Your task to perform on an android device: clear history in the chrome app Image 0: 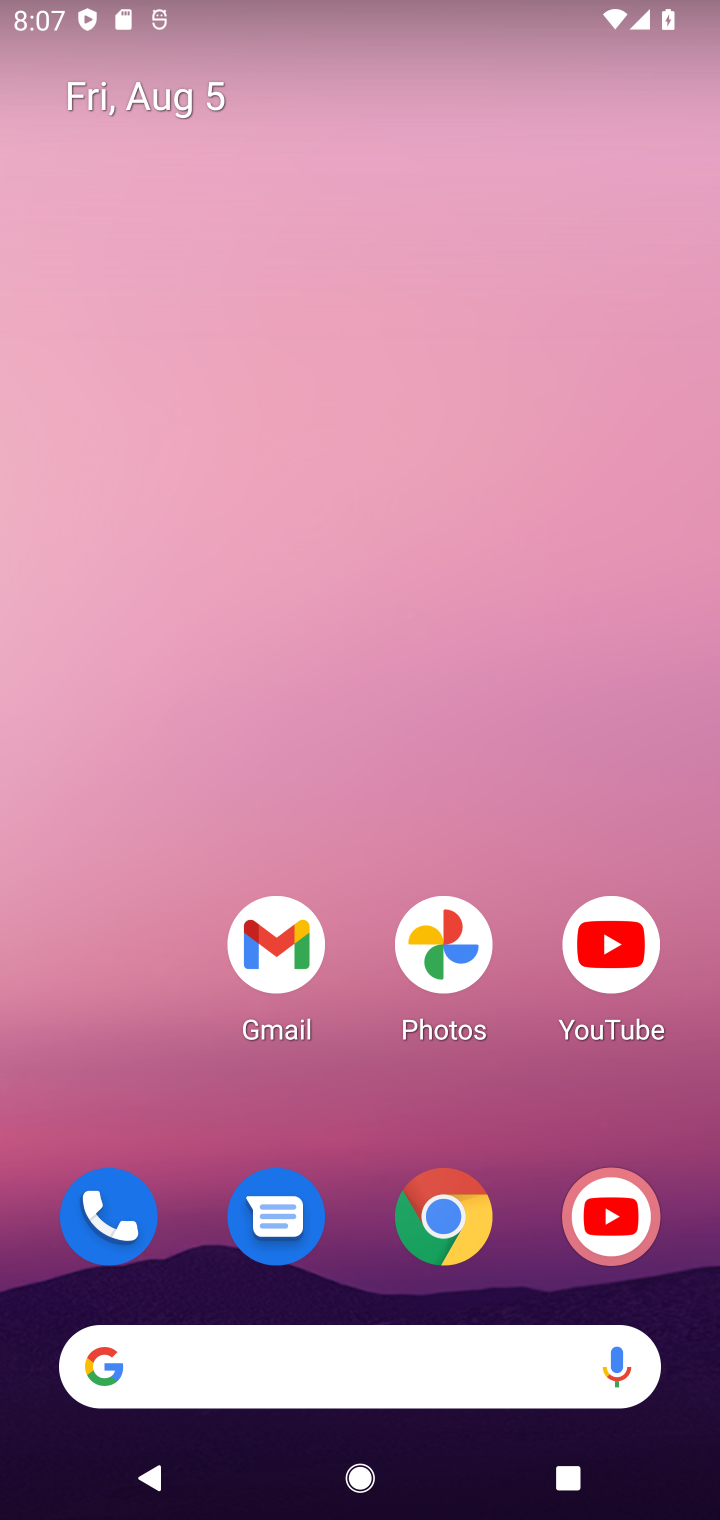
Step 0: drag from (368, 756) to (439, 172)
Your task to perform on an android device: clear history in the chrome app Image 1: 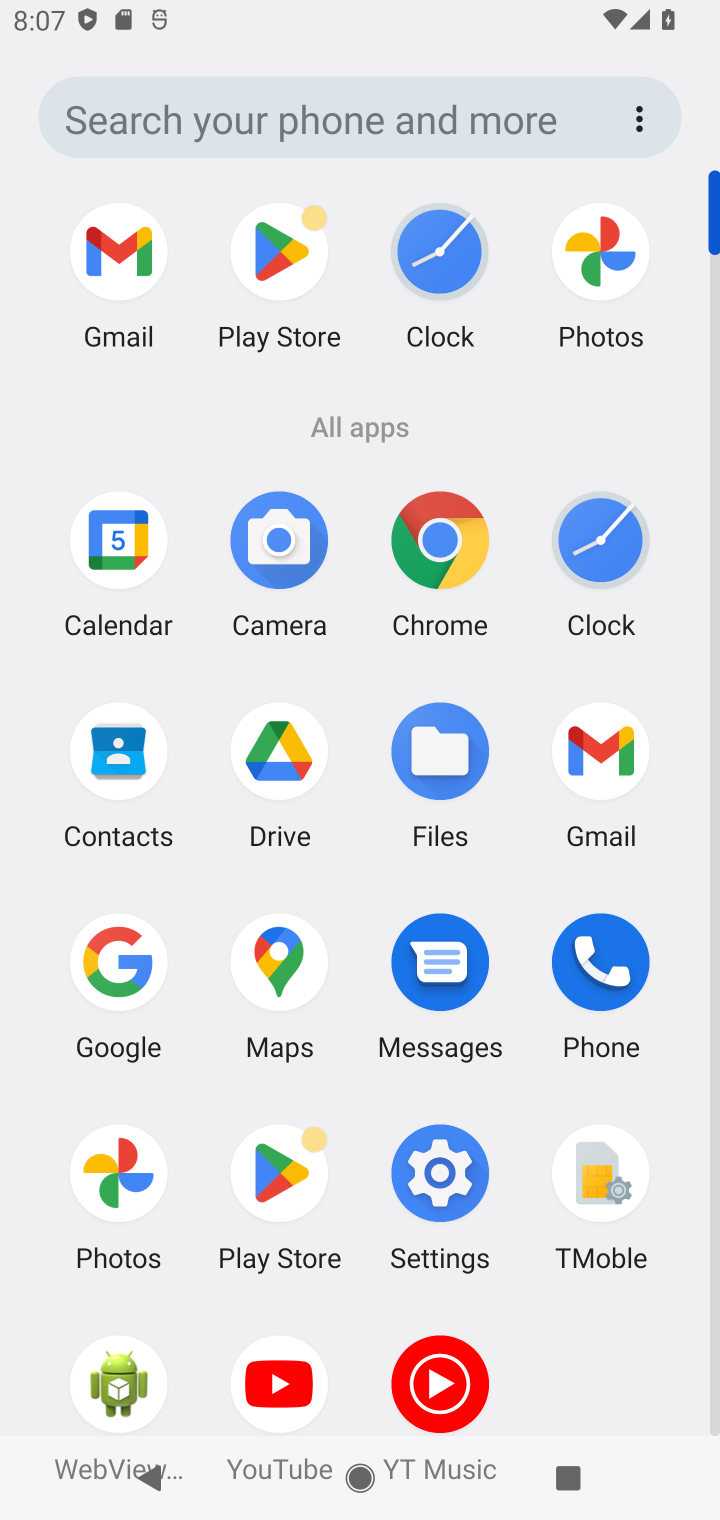
Step 1: click (423, 529)
Your task to perform on an android device: clear history in the chrome app Image 2: 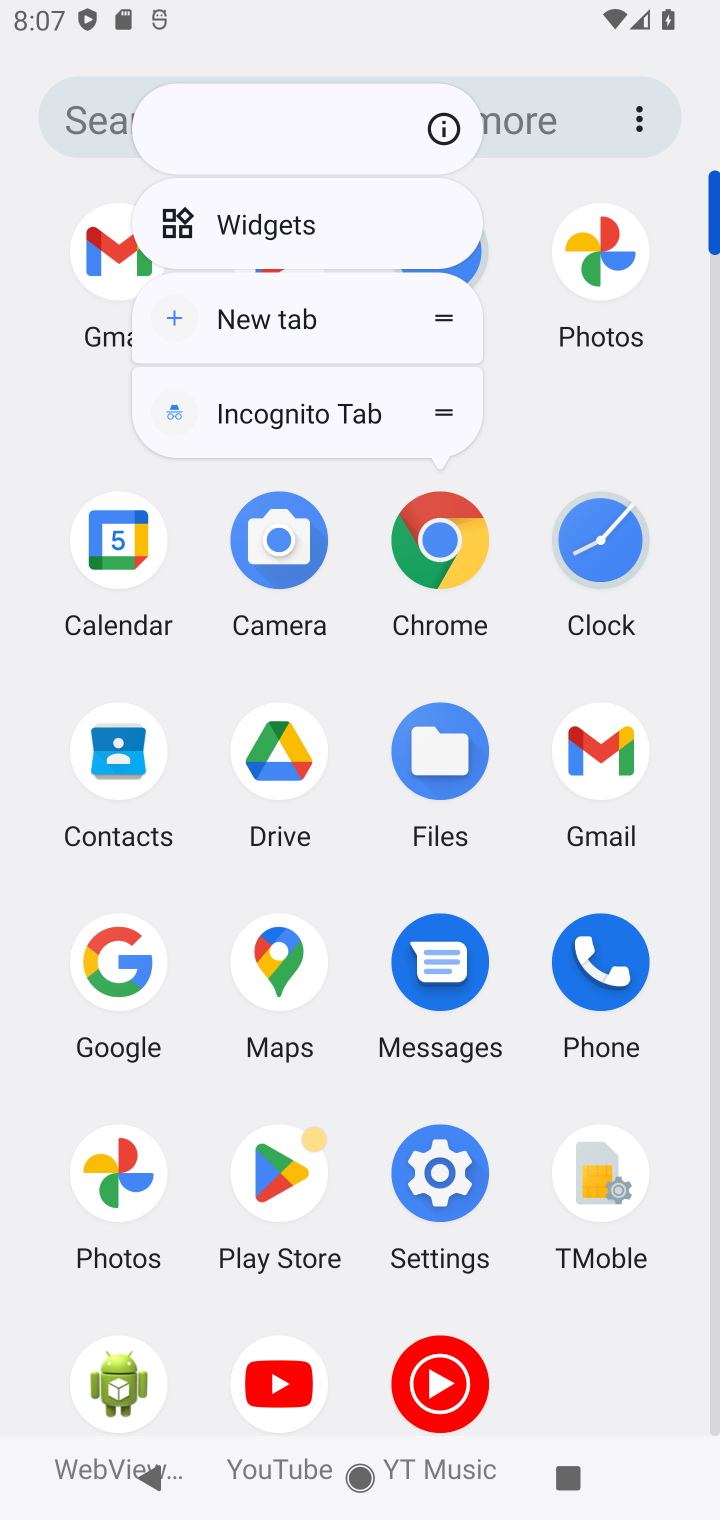
Step 2: click (436, 117)
Your task to perform on an android device: clear history in the chrome app Image 3: 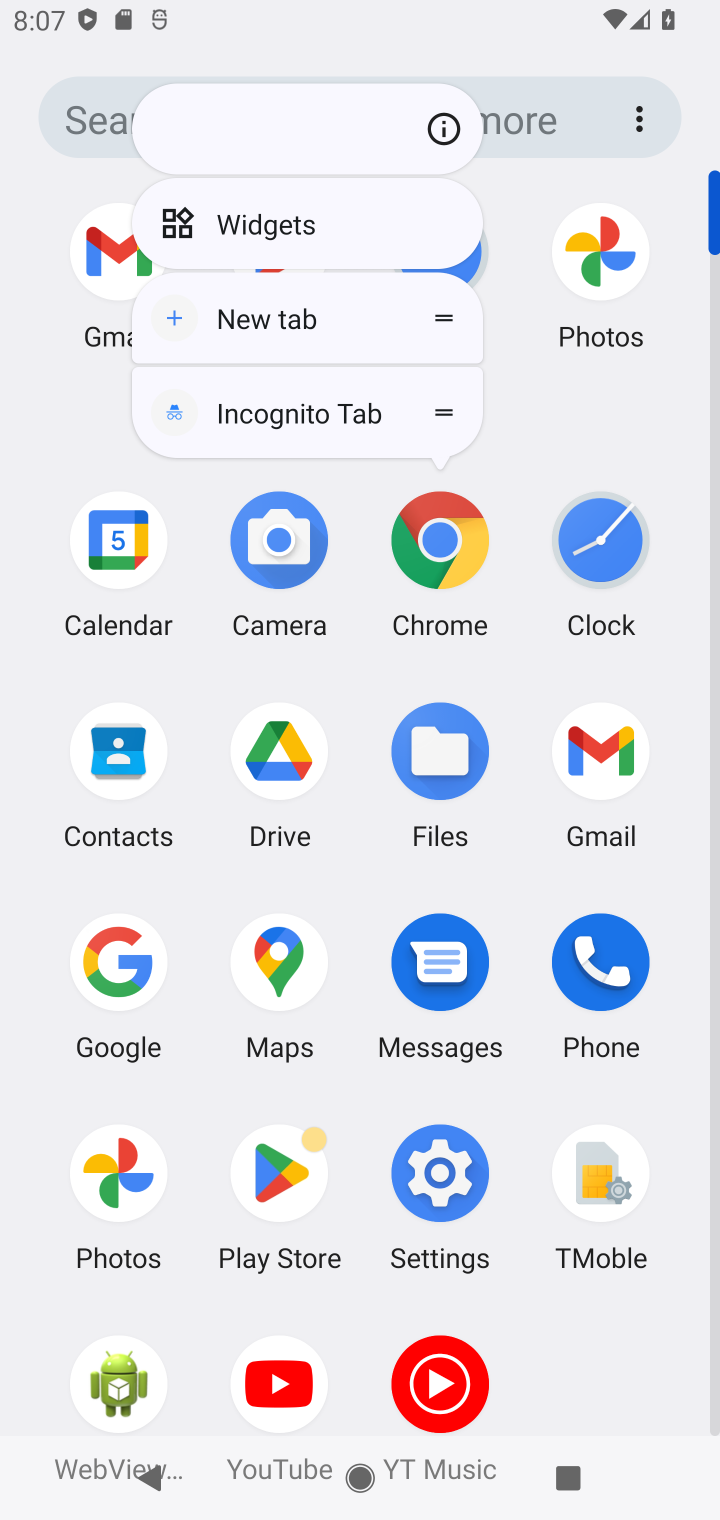
Step 3: click (434, 124)
Your task to perform on an android device: clear history in the chrome app Image 4: 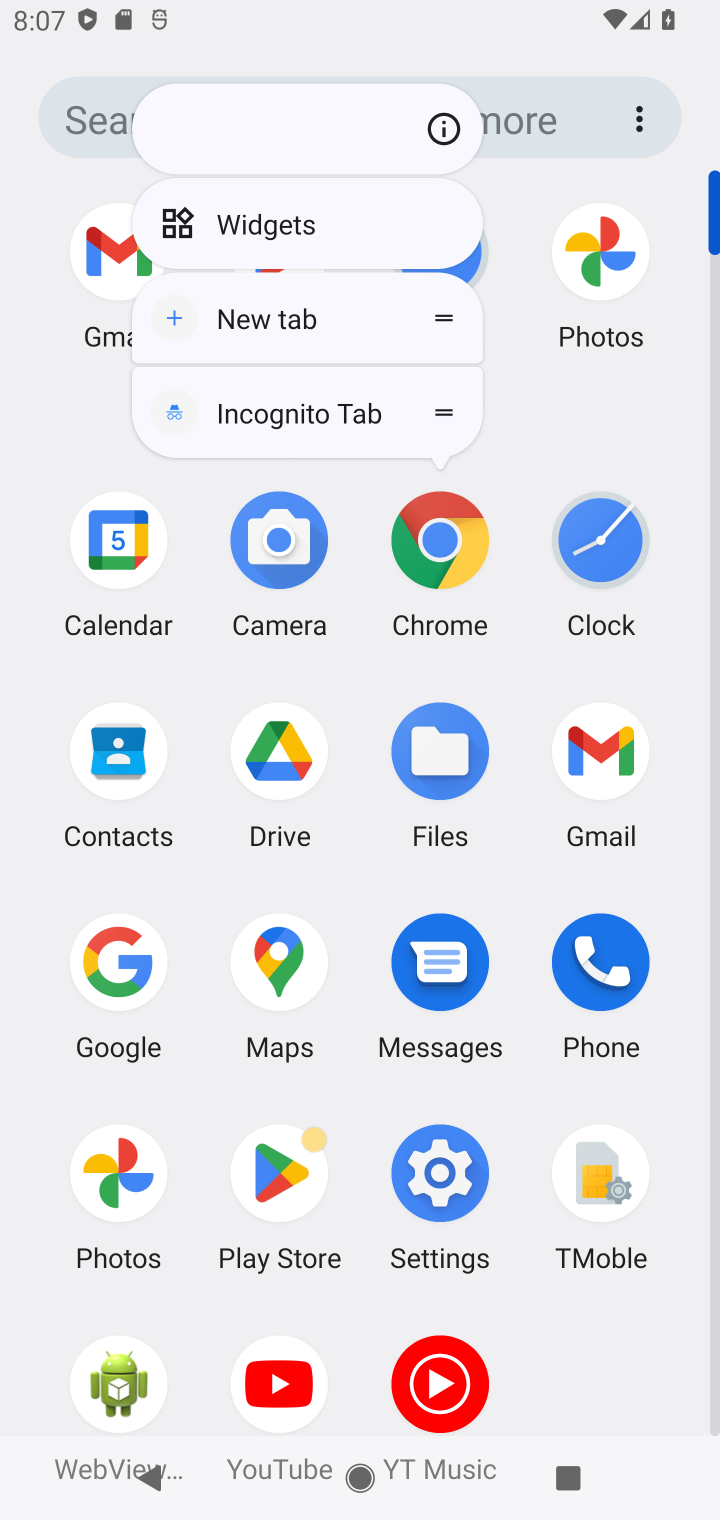
Step 4: click (452, 138)
Your task to perform on an android device: clear history in the chrome app Image 5: 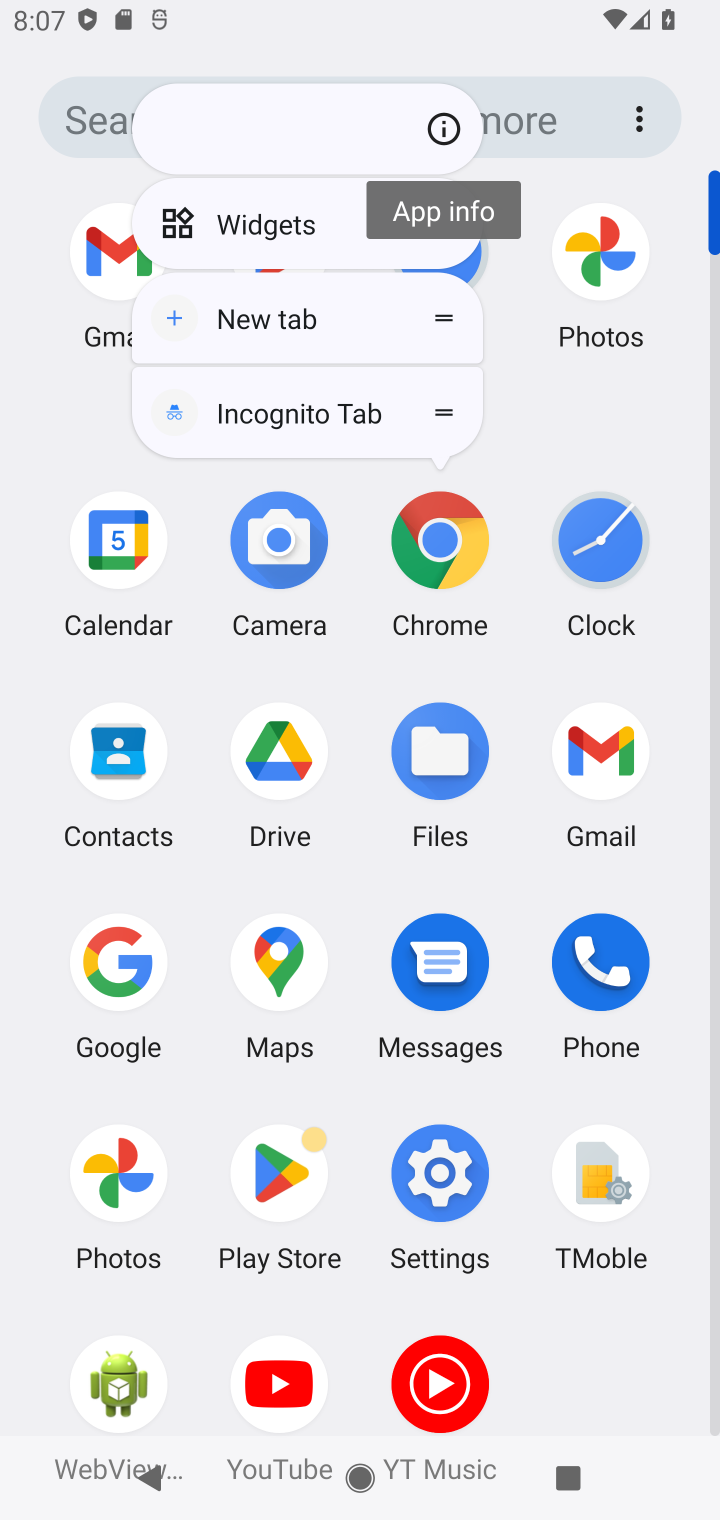
Step 5: click (443, 121)
Your task to perform on an android device: clear history in the chrome app Image 6: 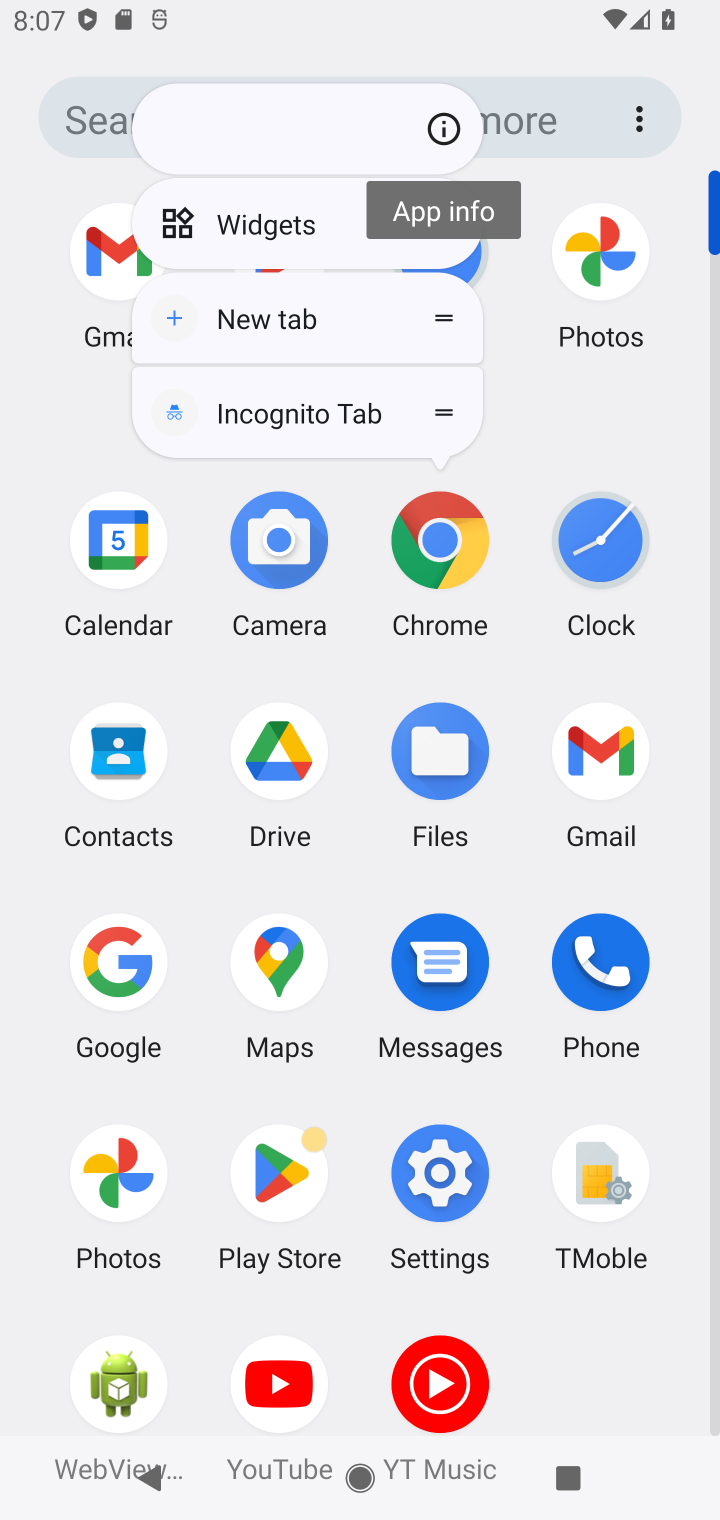
Step 6: click (421, 557)
Your task to perform on an android device: clear history in the chrome app Image 7: 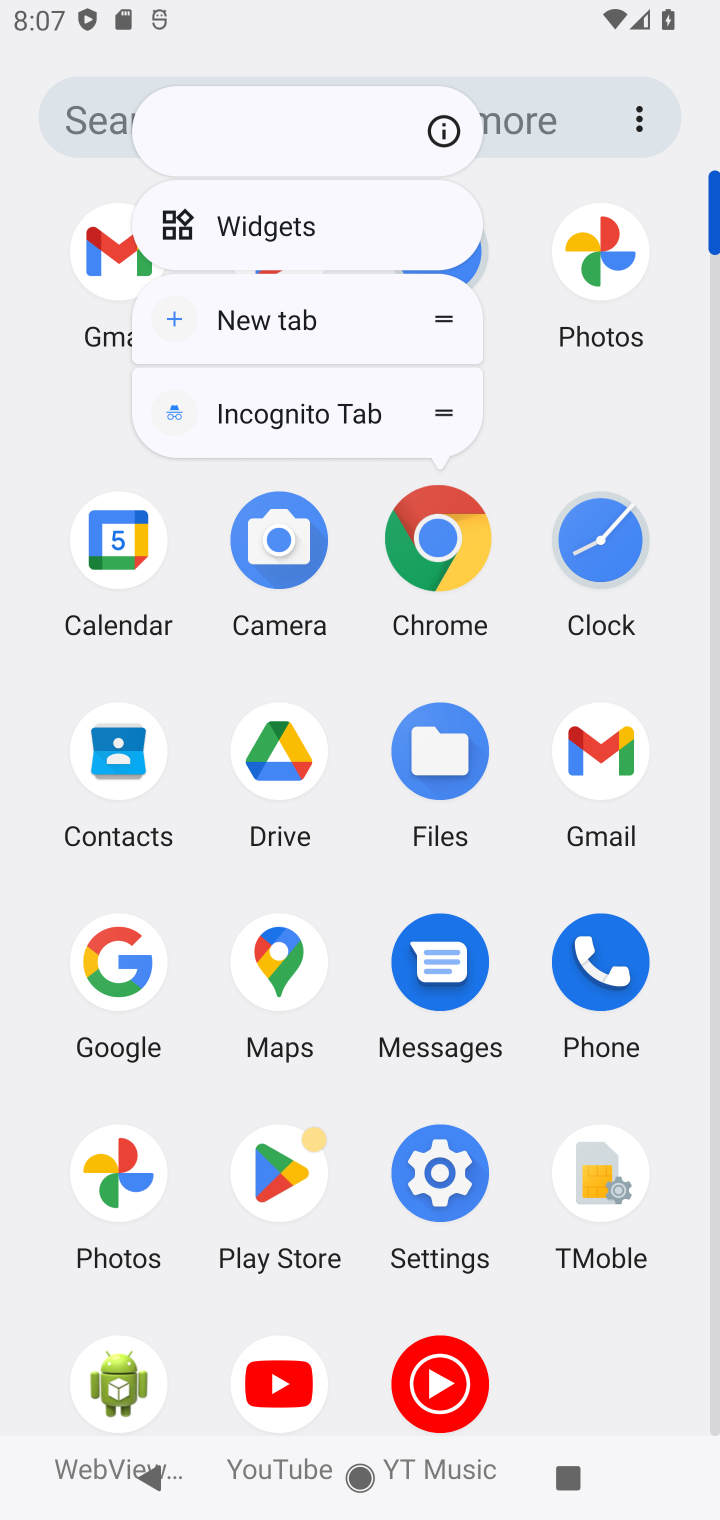
Step 7: click (415, 544)
Your task to perform on an android device: clear history in the chrome app Image 8: 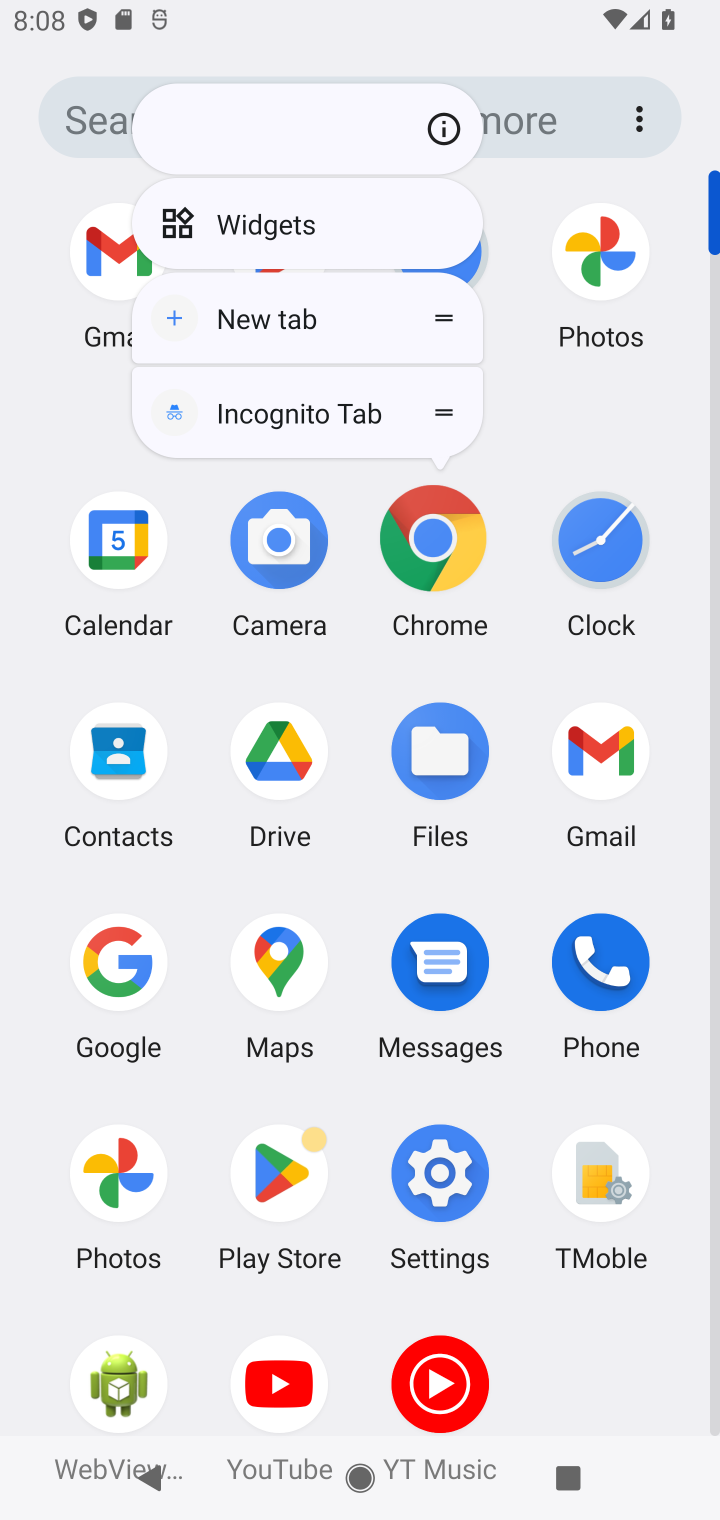
Step 8: click (435, 554)
Your task to perform on an android device: clear history in the chrome app Image 9: 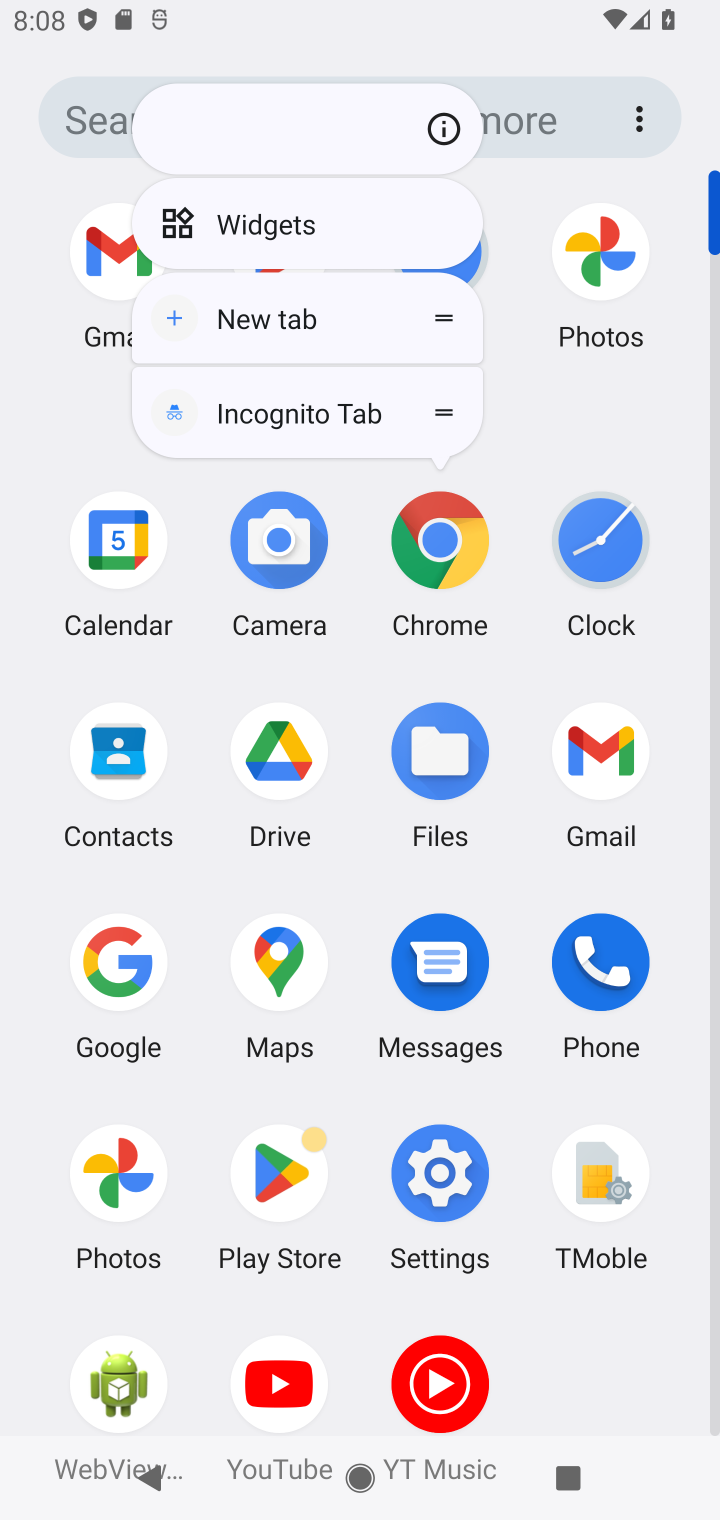
Step 9: click (456, 130)
Your task to perform on an android device: clear history in the chrome app Image 10: 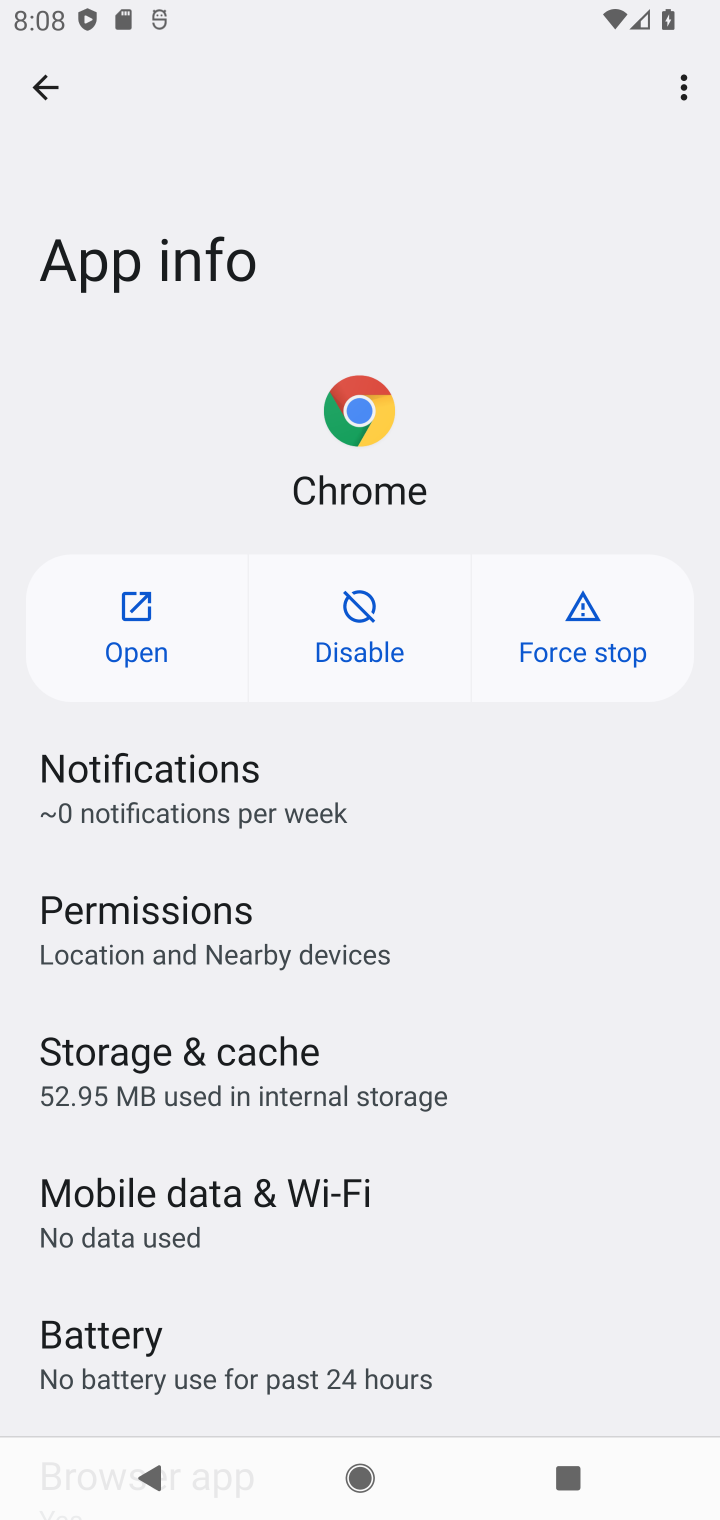
Step 10: click (144, 613)
Your task to perform on an android device: clear history in the chrome app Image 11: 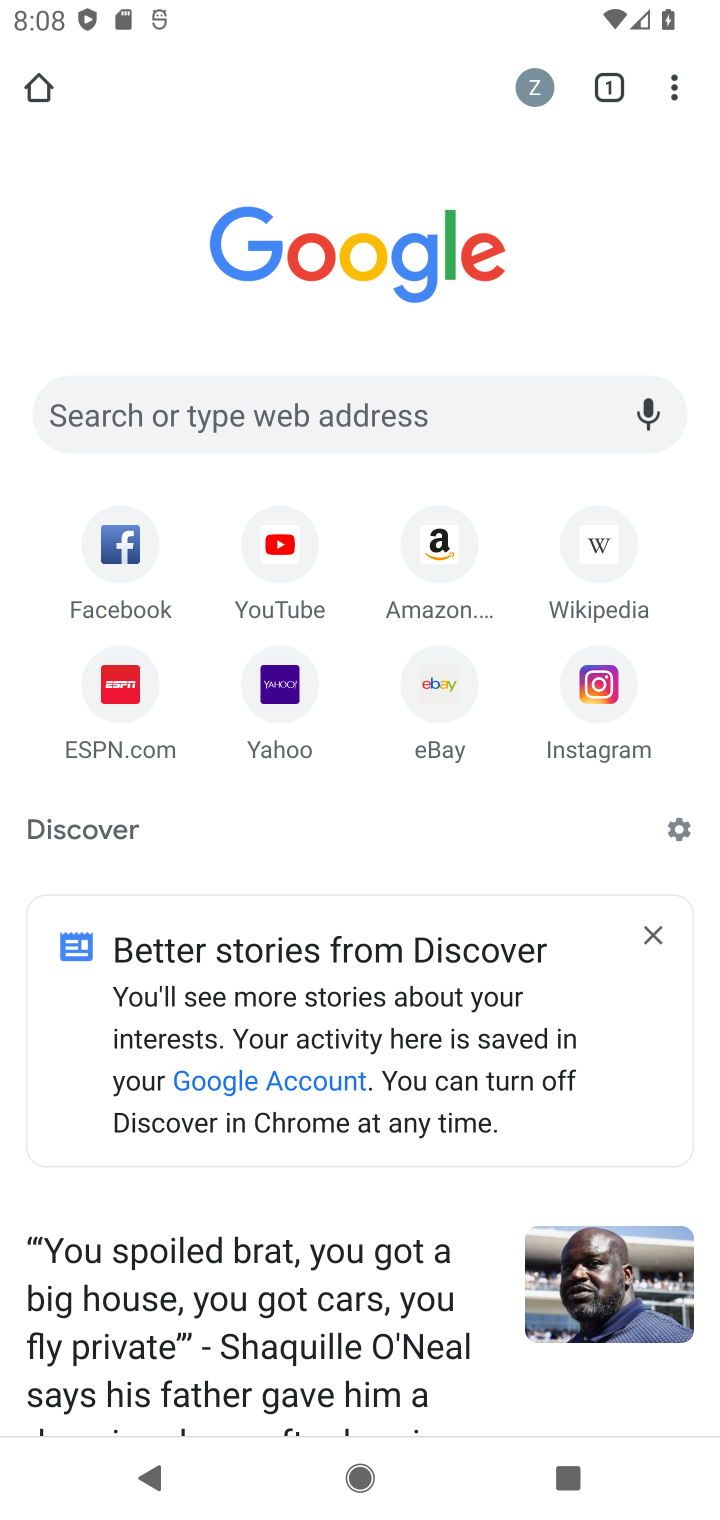
Step 11: drag from (249, 1240) to (370, 245)
Your task to perform on an android device: clear history in the chrome app Image 12: 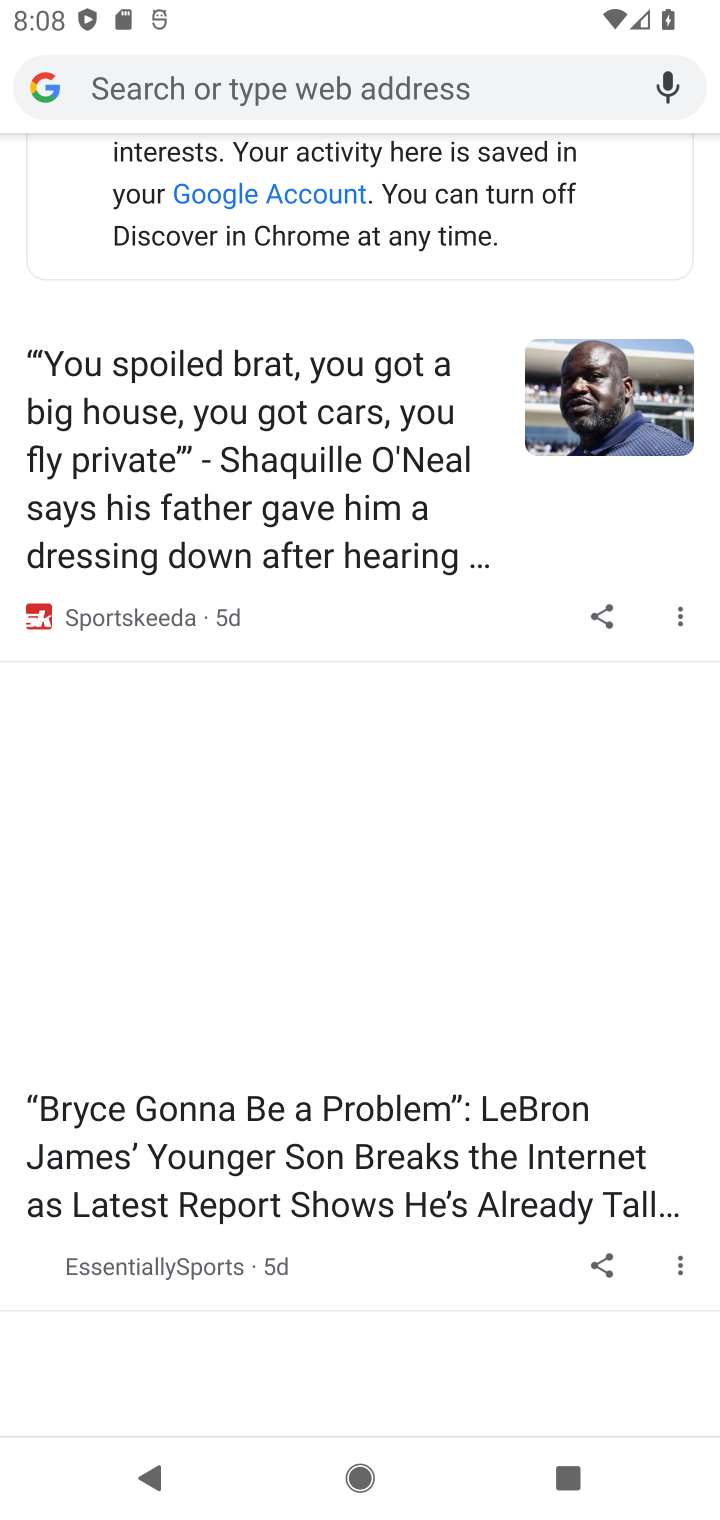
Step 12: drag from (393, 630) to (400, 1447)
Your task to perform on an android device: clear history in the chrome app Image 13: 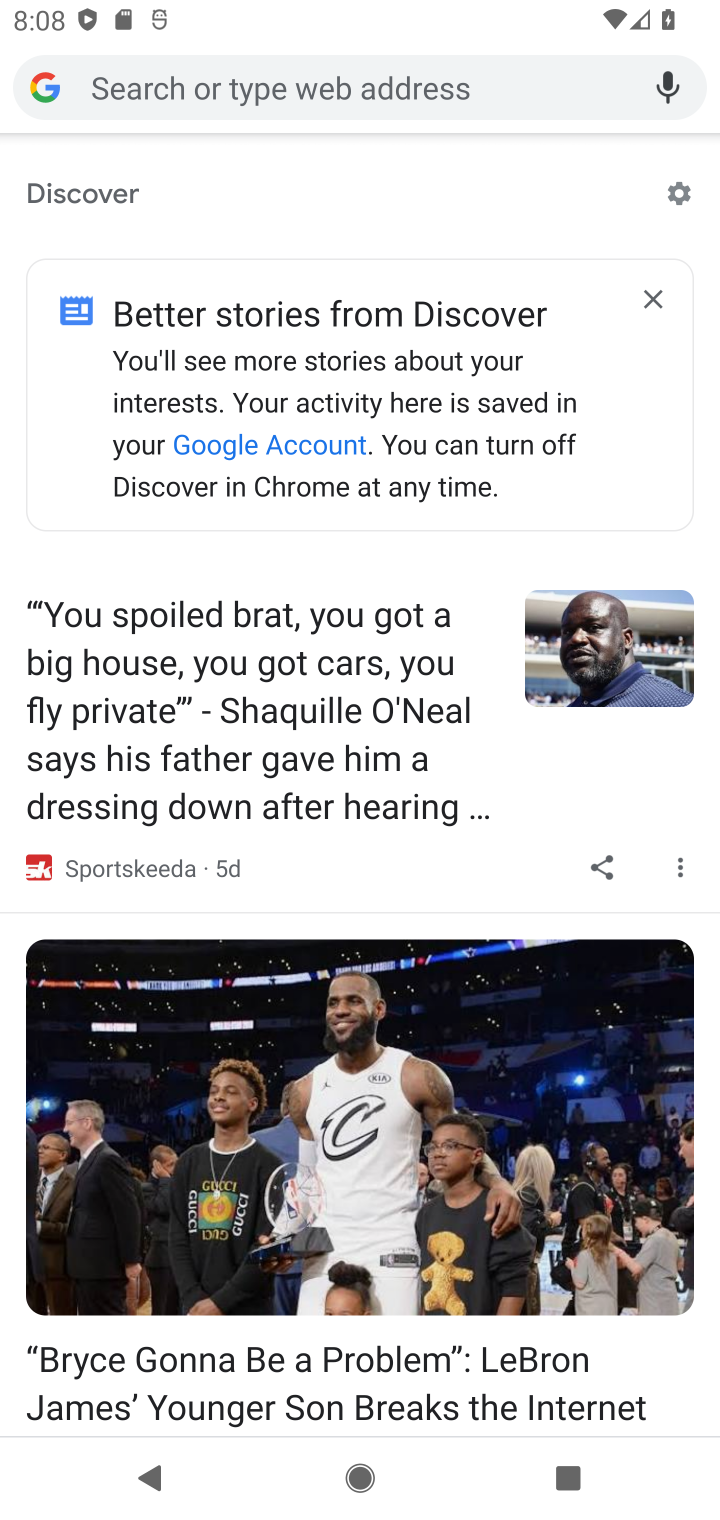
Step 13: drag from (368, 485) to (415, 1151)
Your task to perform on an android device: clear history in the chrome app Image 14: 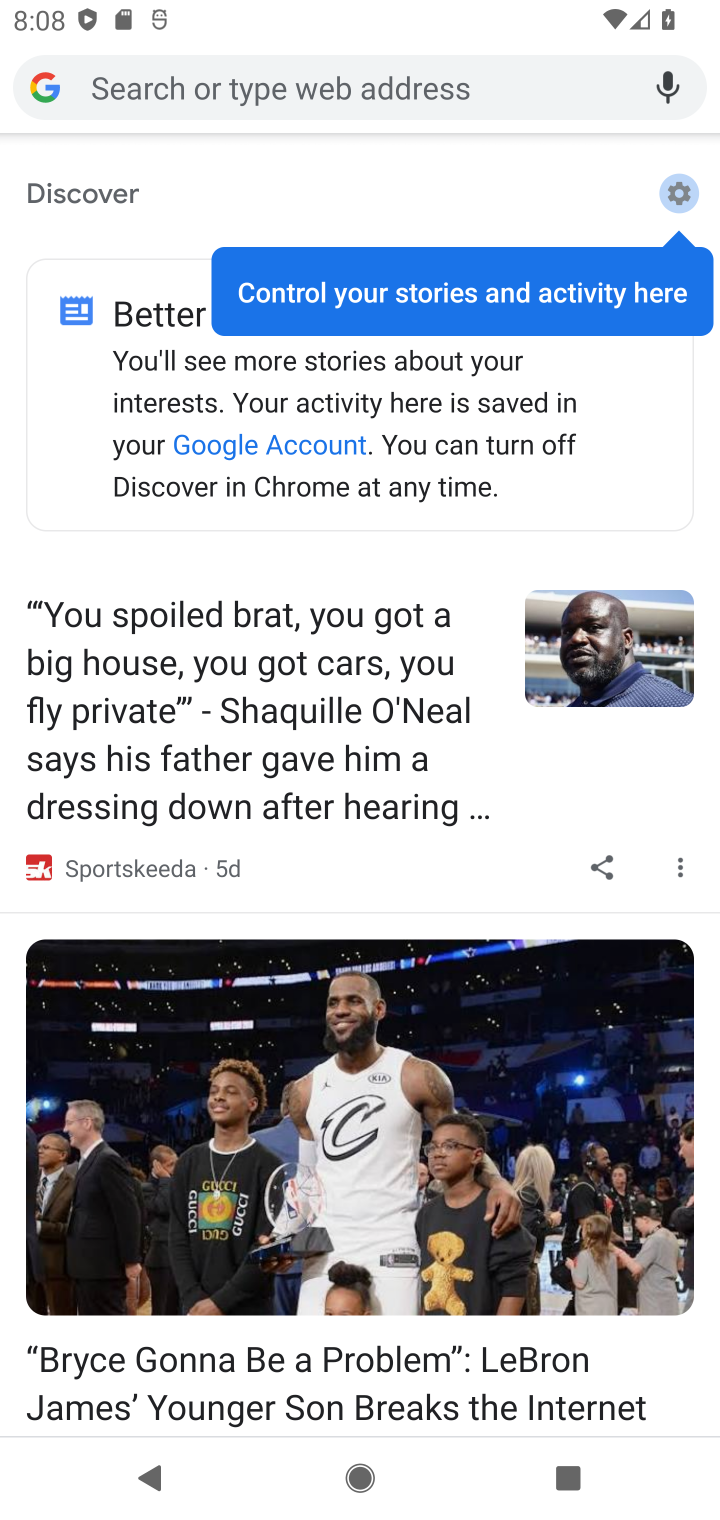
Step 14: drag from (411, 465) to (456, 1064)
Your task to perform on an android device: clear history in the chrome app Image 15: 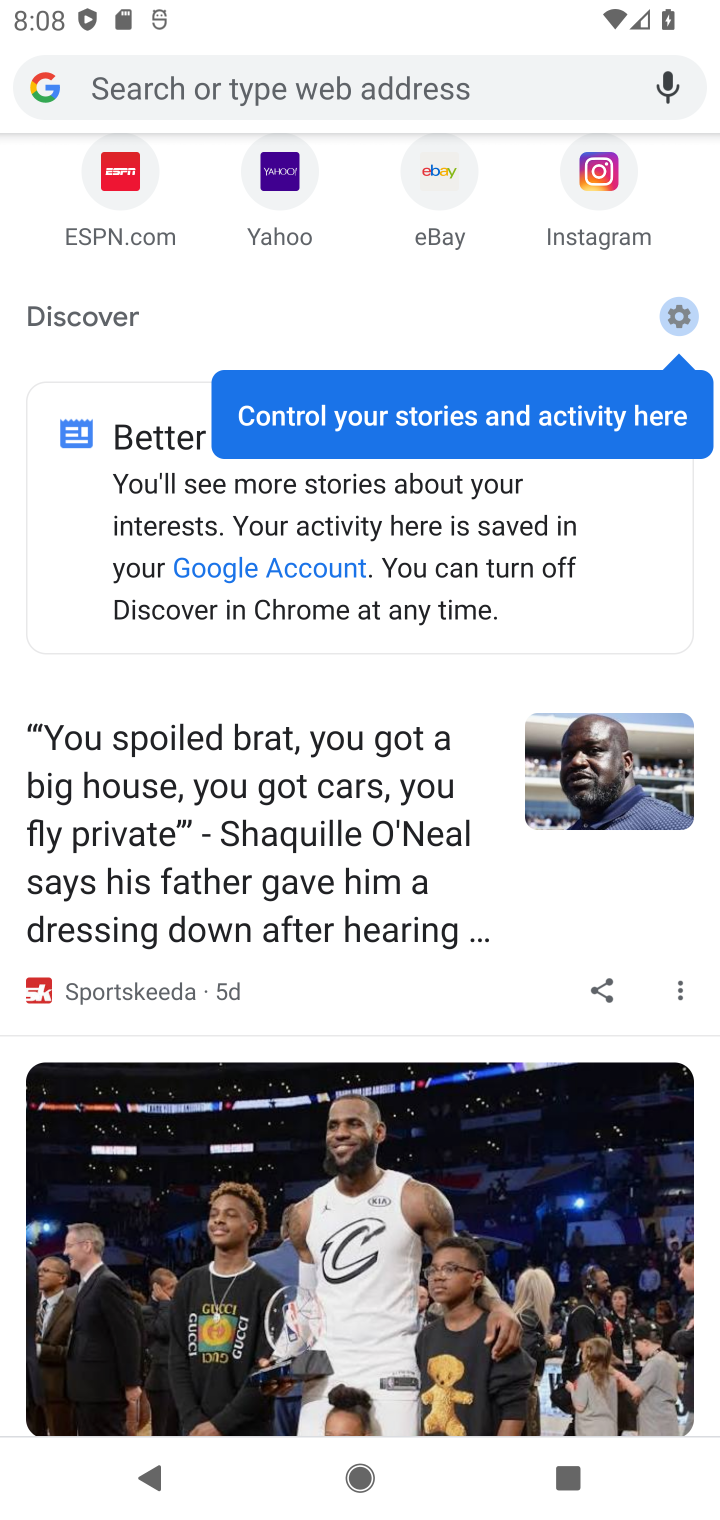
Step 15: drag from (387, 506) to (437, 964)
Your task to perform on an android device: clear history in the chrome app Image 16: 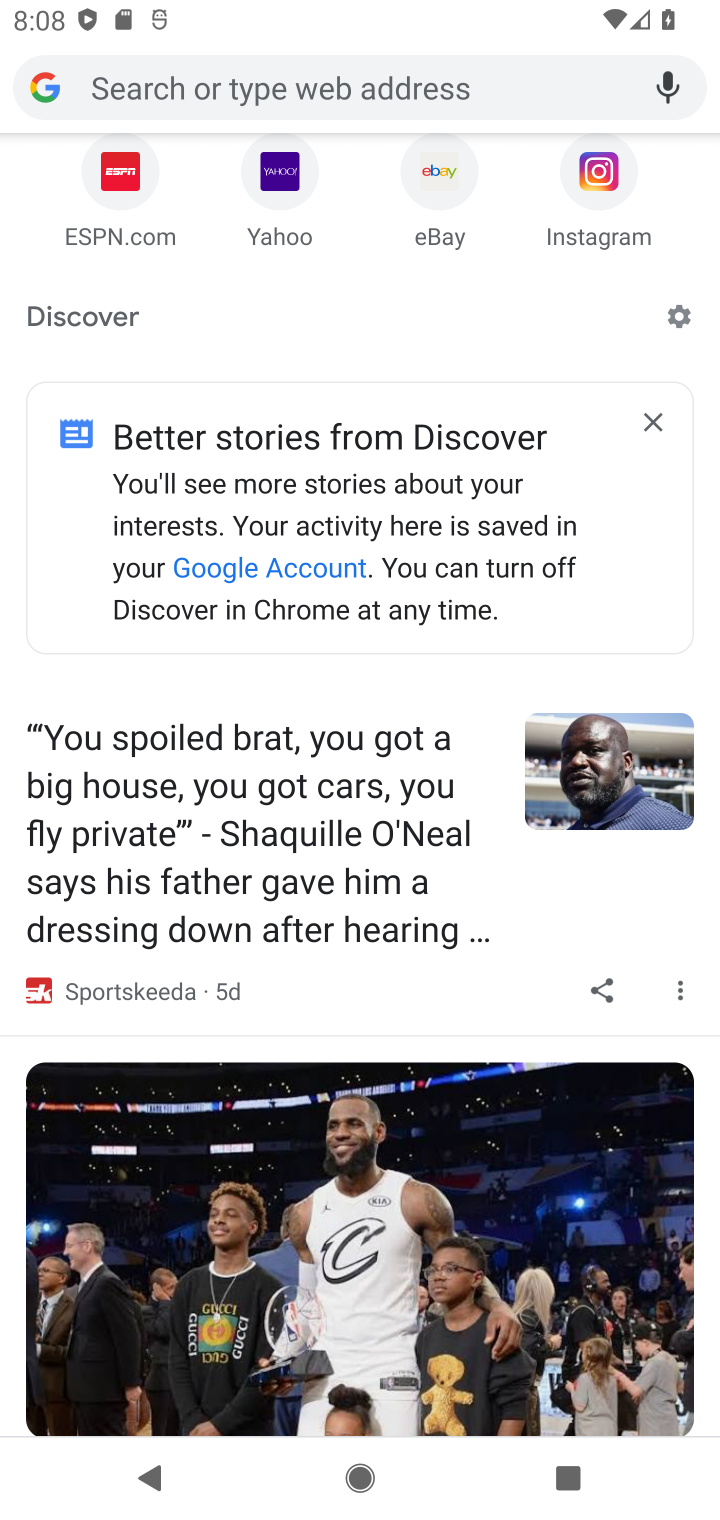
Step 16: drag from (493, 551) to (554, 1040)
Your task to perform on an android device: clear history in the chrome app Image 17: 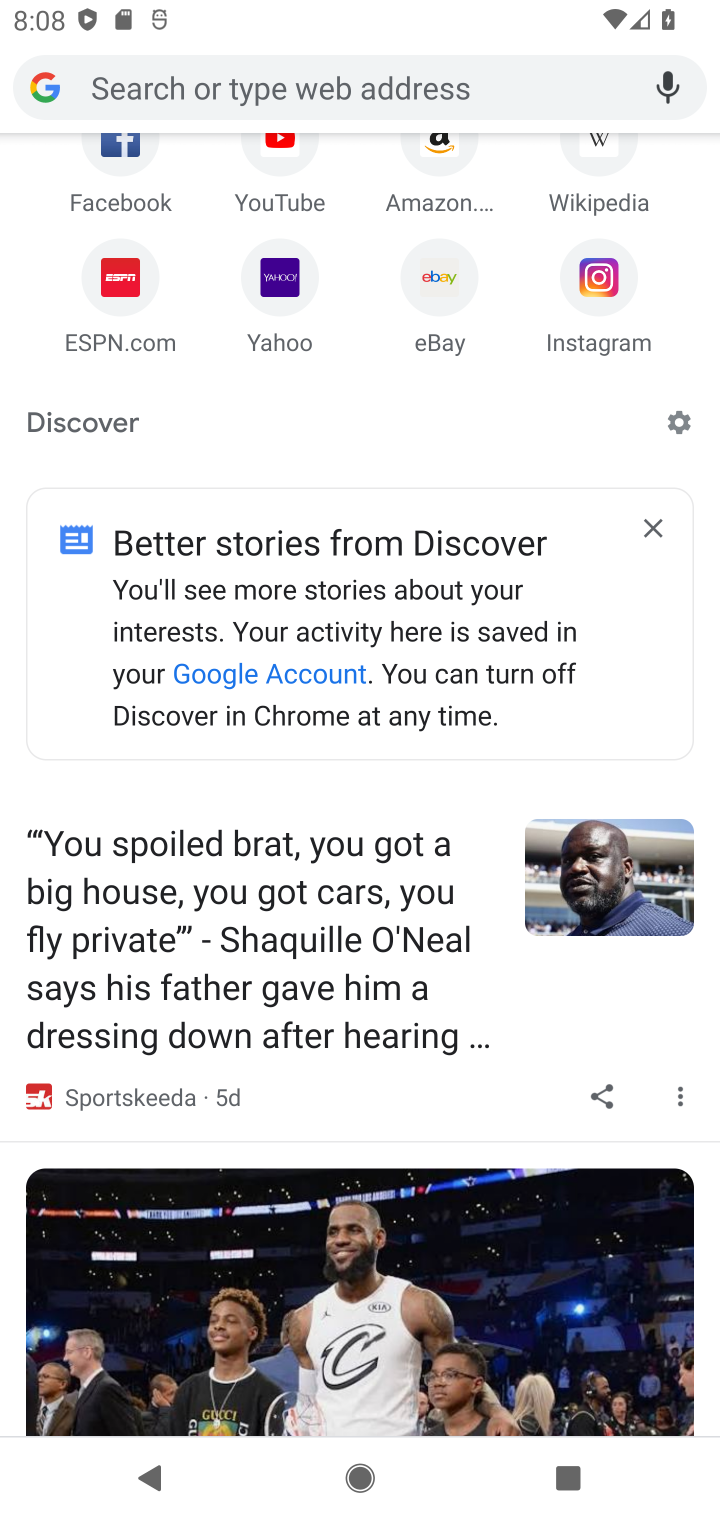
Step 17: drag from (320, 513) to (488, 1050)
Your task to perform on an android device: clear history in the chrome app Image 18: 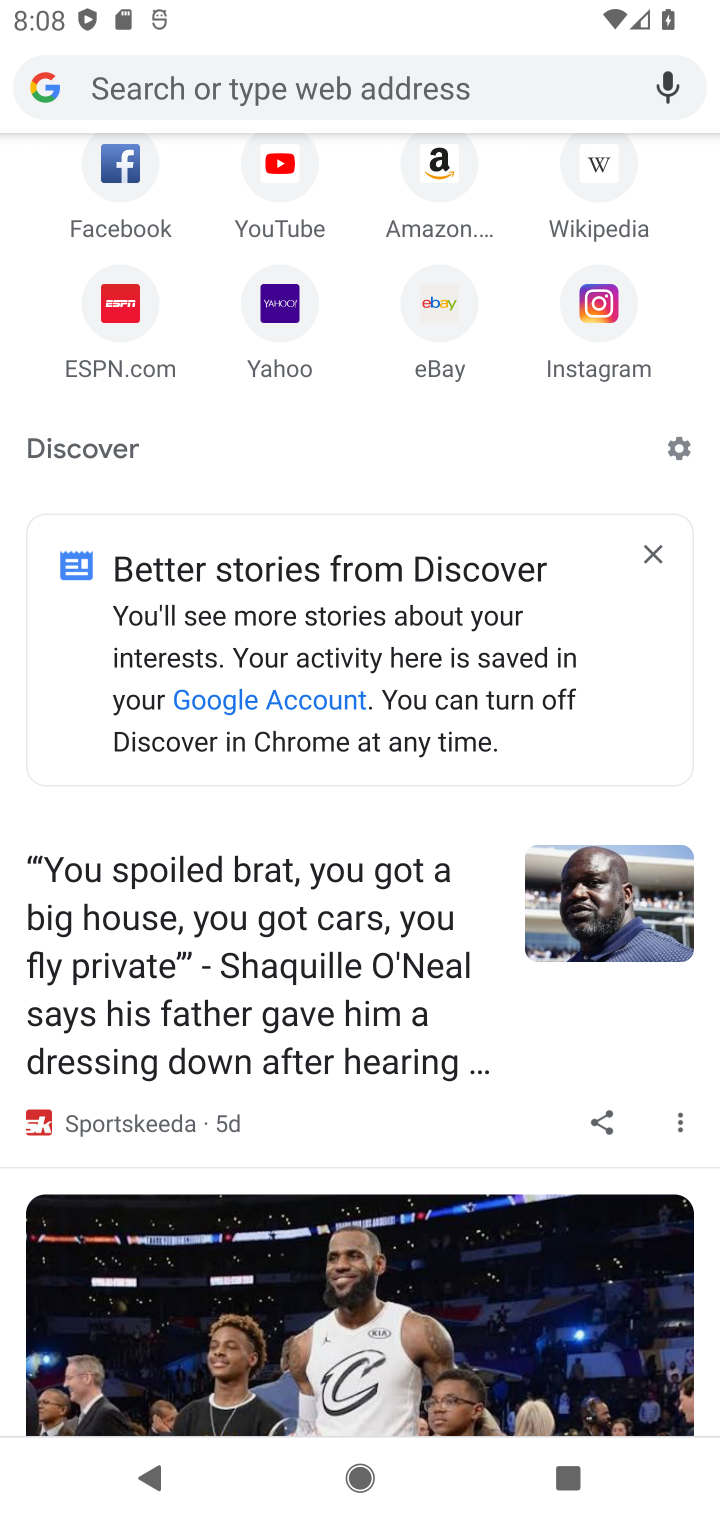
Step 18: drag from (523, 258) to (454, 1121)
Your task to perform on an android device: clear history in the chrome app Image 19: 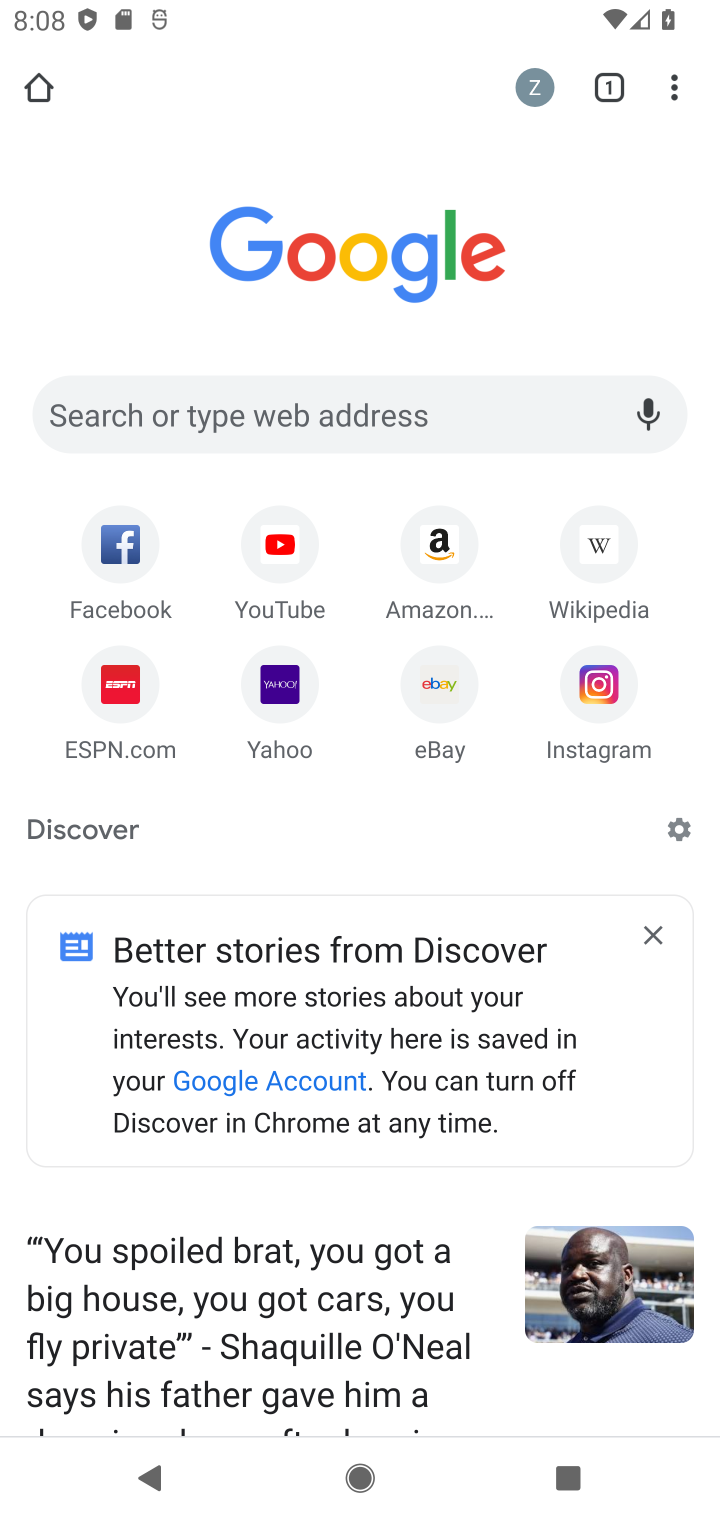
Step 19: drag from (673, 82) to (429, 770)
Your task to perform on an android device: clear history in the chrome app Image 20: 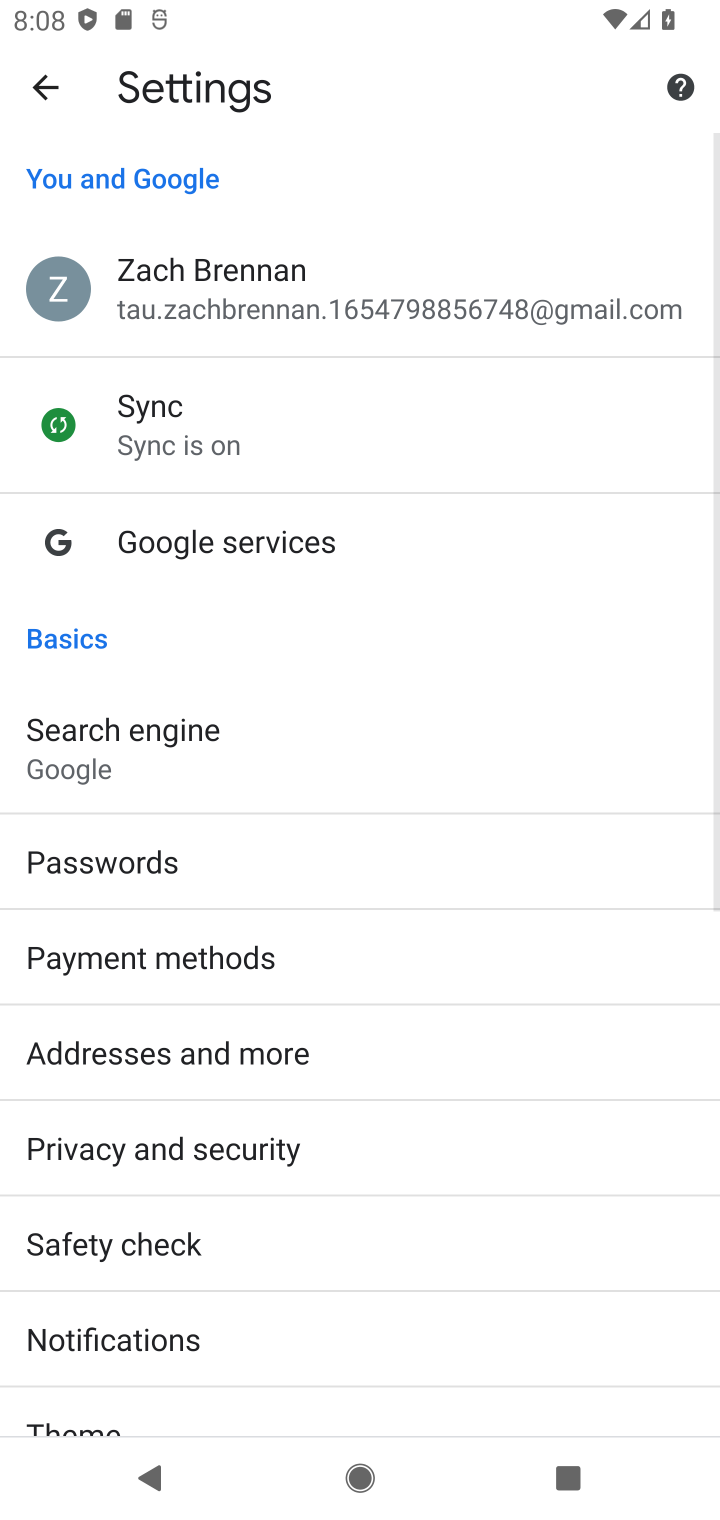
Step 20: click (33, 78)
Your task to perform on an android device: clear history in the chrome app Image 21: 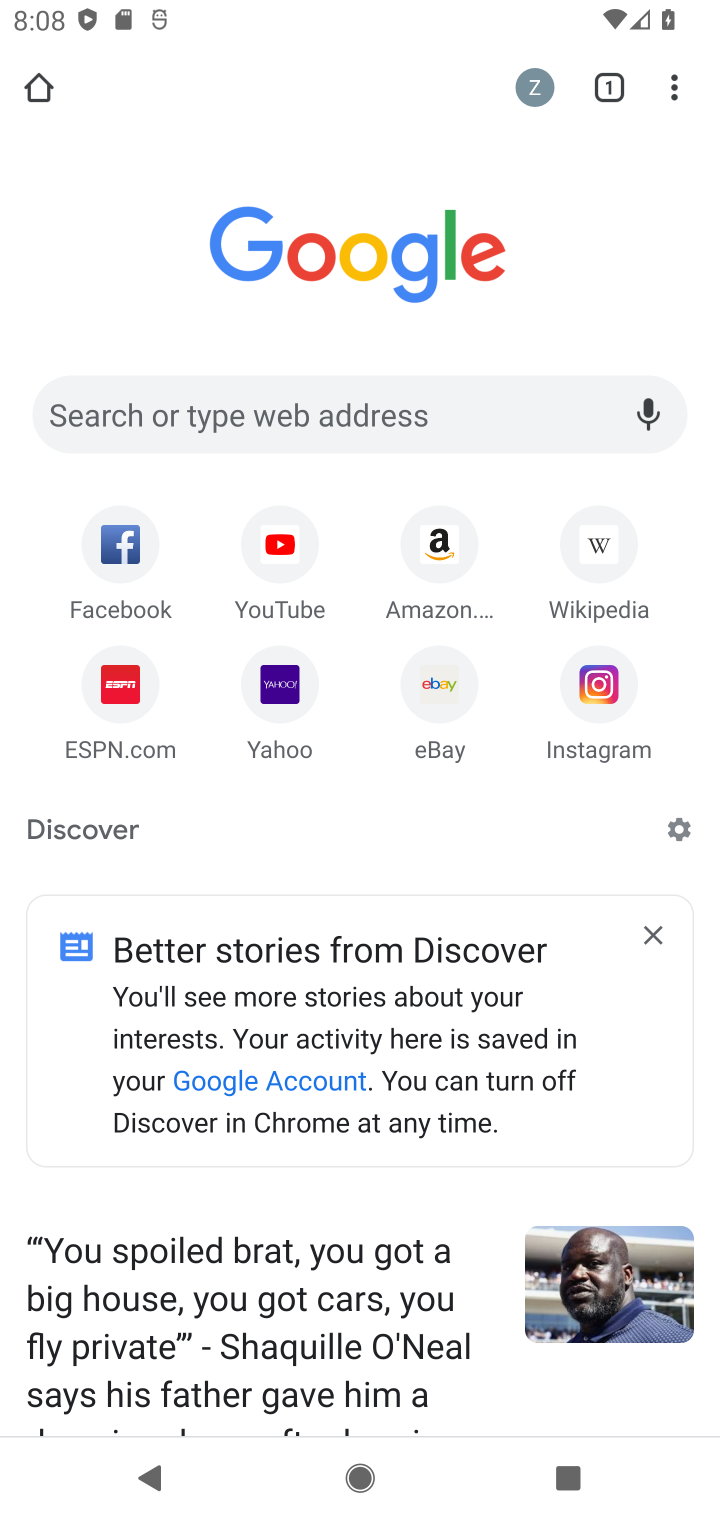
Step 21: drag from (679, 71) to (462, 351)
Your task to perform on an android device: clear history in the chrome app Image 22: 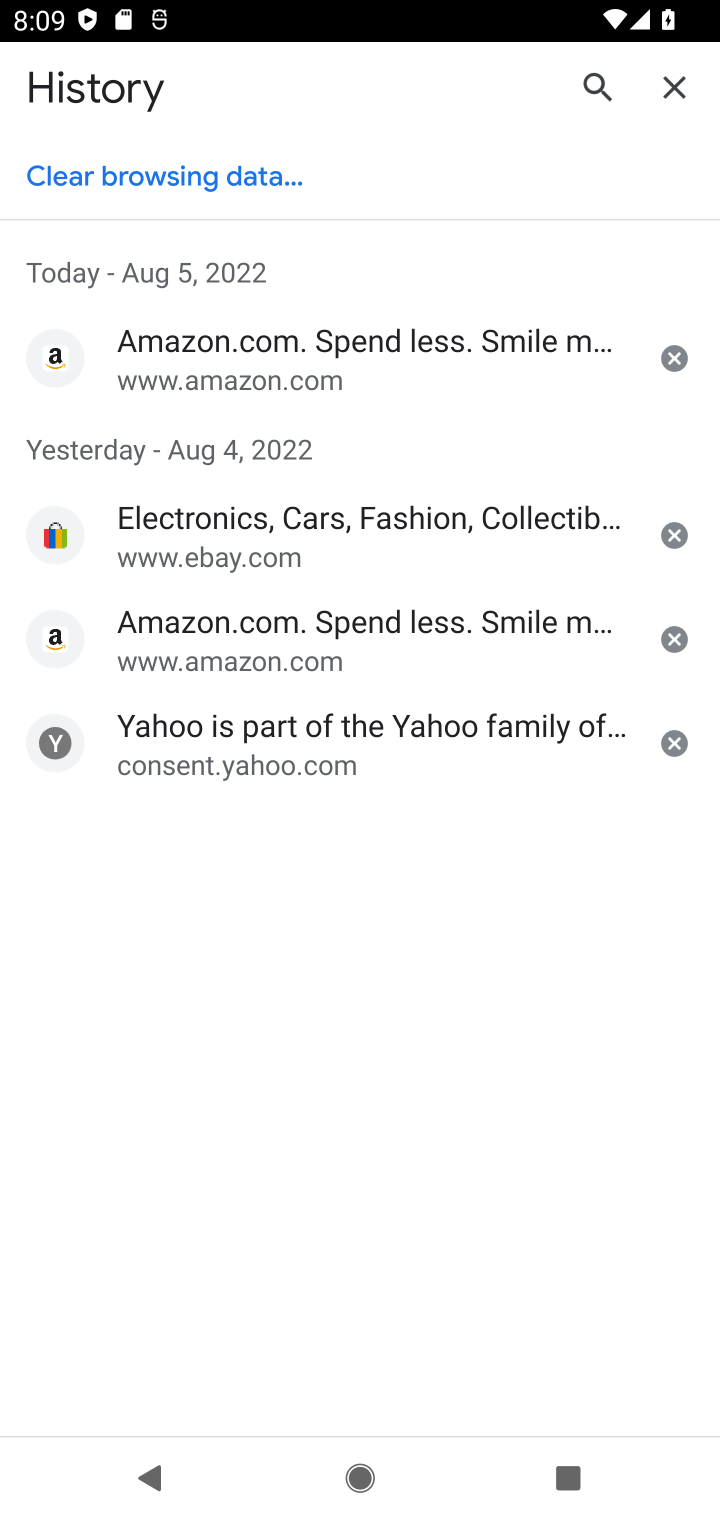
Step 22: drag from (327, 803) to (412, 263)
Your task to perform on an android device: clear history in the chrome app Image 23: 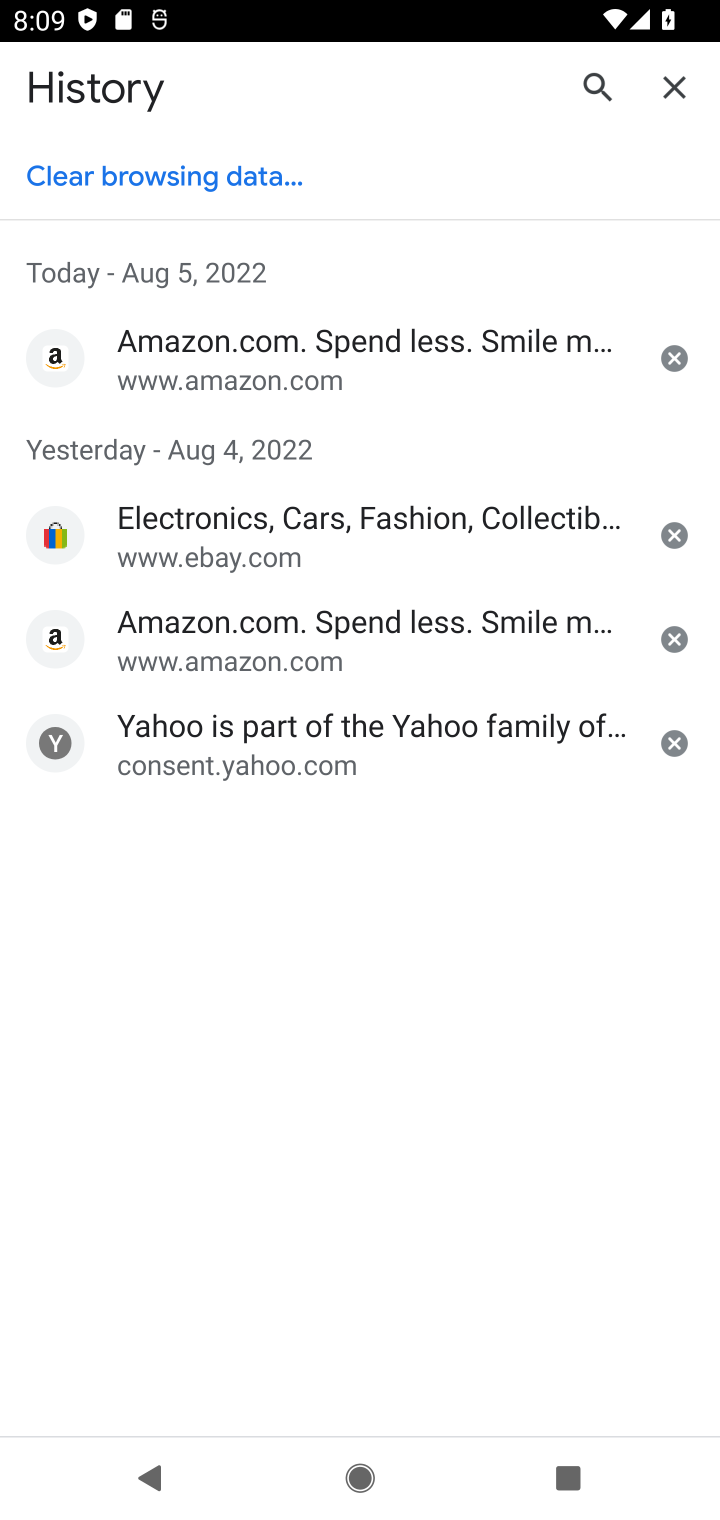
Step 23: click (66, 192)
Your task to perform on an android device: clear history in the chrome app Image 24: 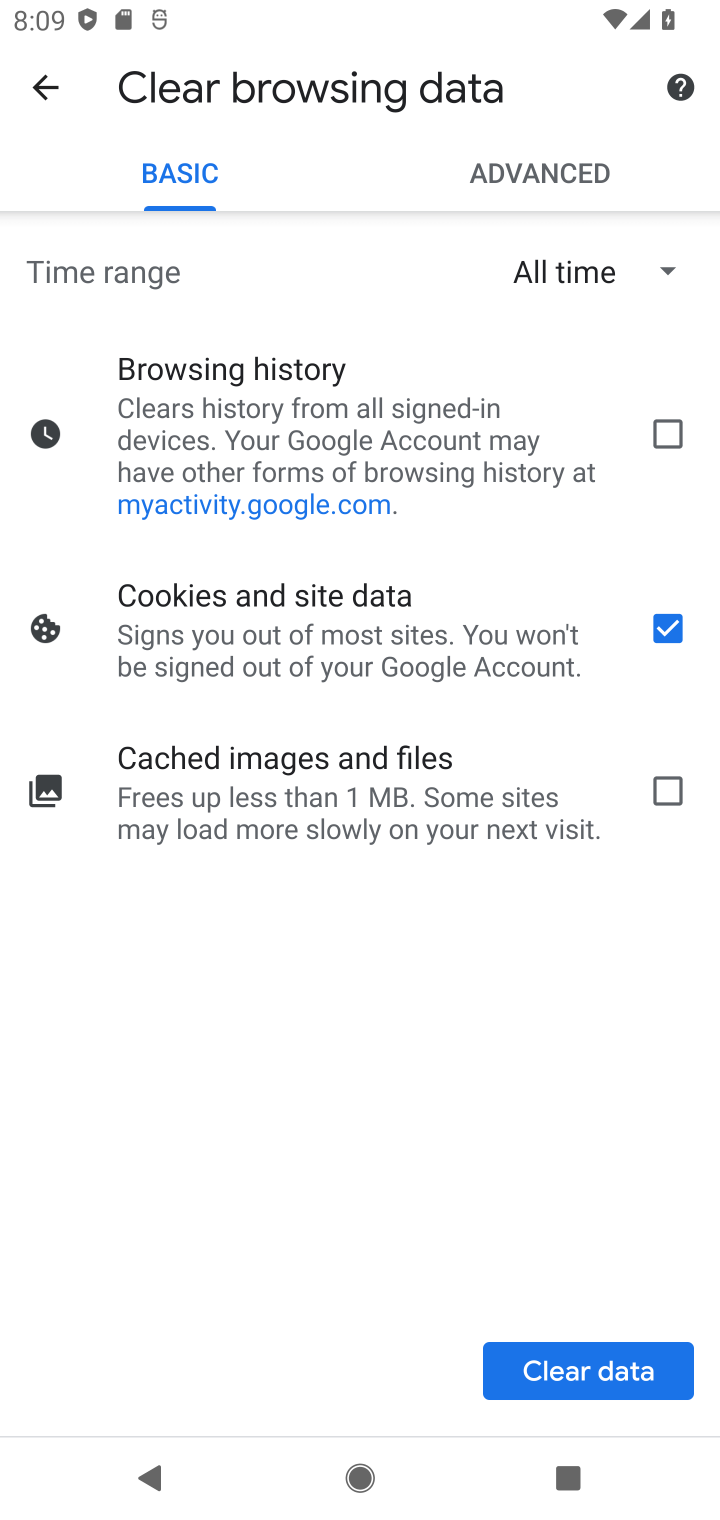
Step 24: click (663, 438)
Your task to perform on an android device: clear history in the chrome app Image 25: 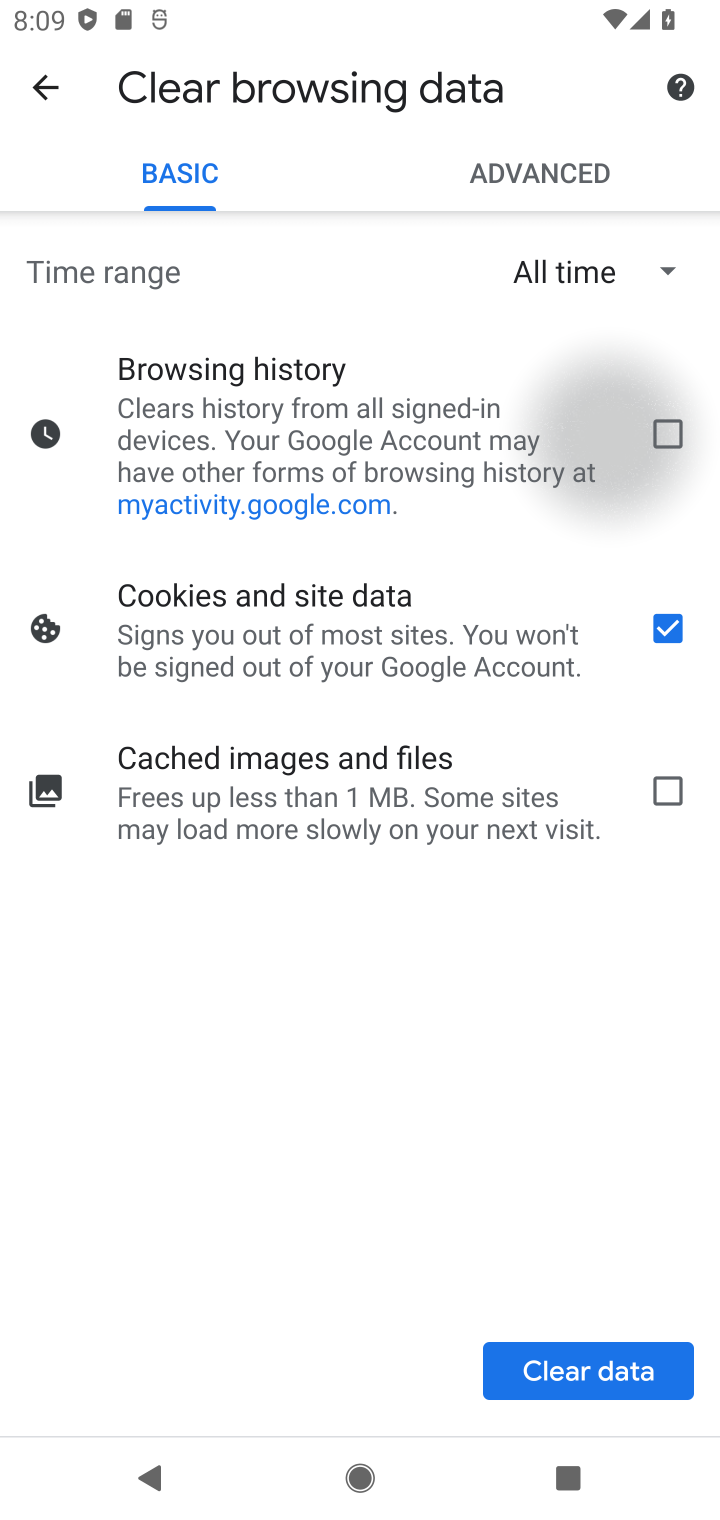
Step 25: click (633, 764)
Your task to perform on an android device: clear history in the chrome app Image 26: 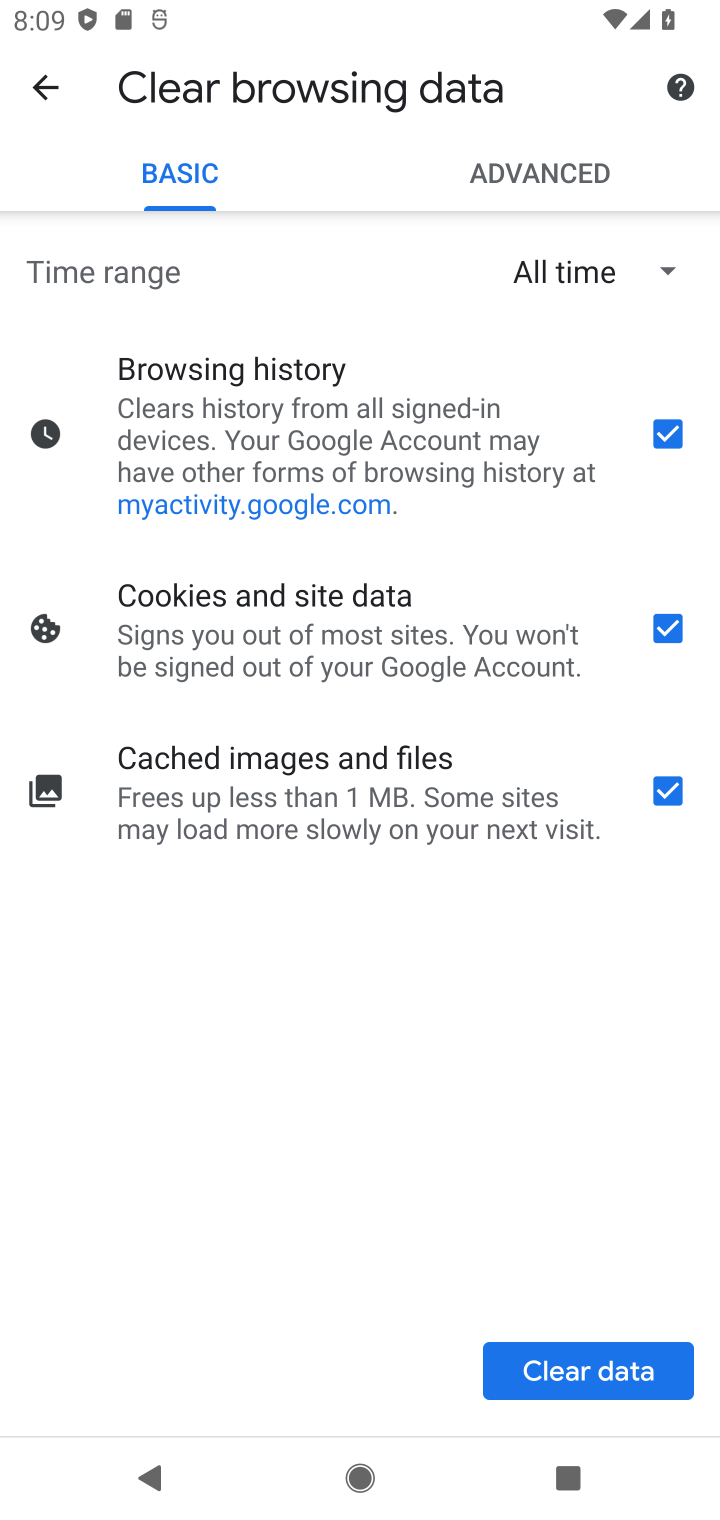
Step 26: click (496, 1375)
Your task to perform on an android device: clear history in the chrome app Image 27: 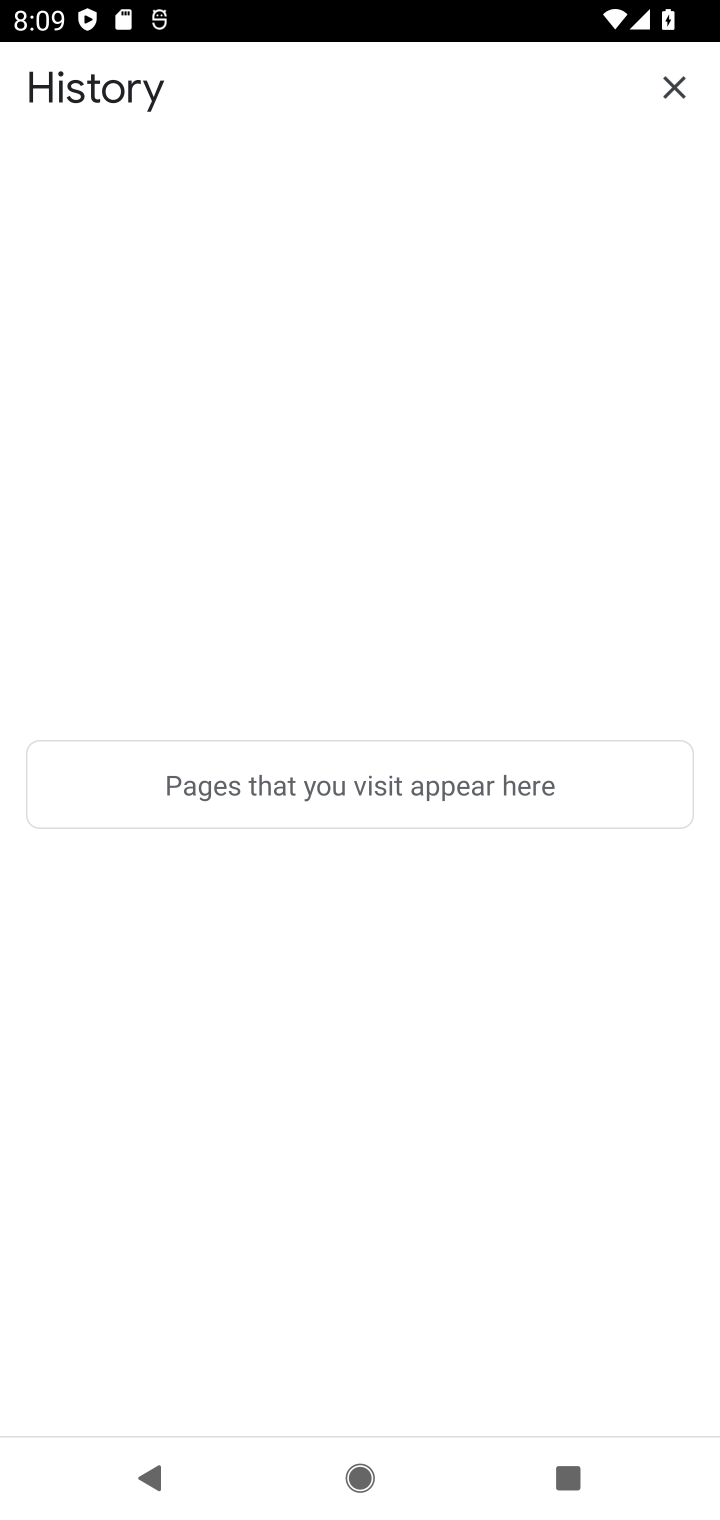
Step 27: task complete